Your task to perform on an android device: Go to display settings Image 0: 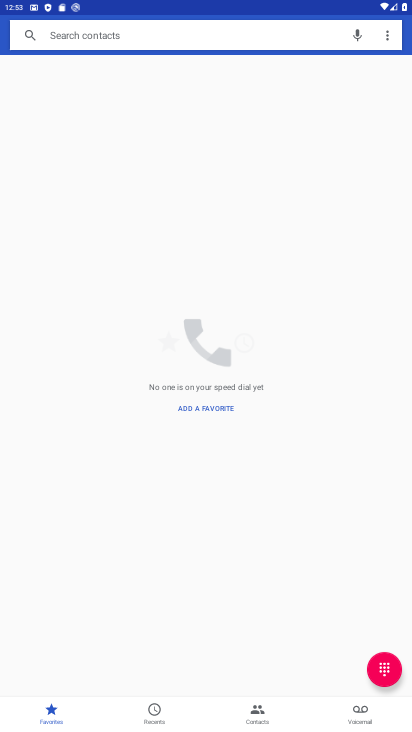
Step 0: drag from (269, 12) to (299, 548)
Your task to perform on an android device: Go to display settings Image 1: 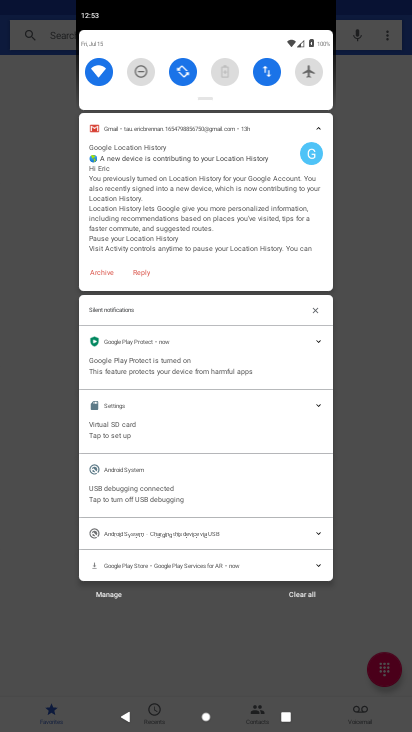
Step 1: drag from (195, 41) to (262, 610)
Your task to perform on an android device: Go to display settings Image 2: 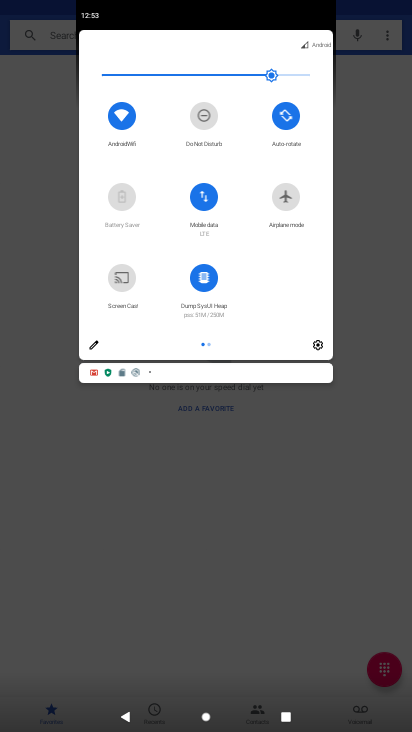
Step 2: click (318, 347)
Your task to perform on an android device: Go to display settings Image 3: 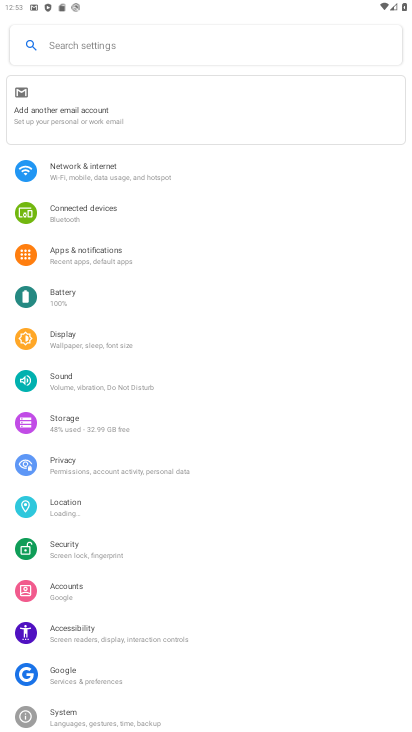
Step 3: click (95, 341)
Your task to perform on an android device: Go to display settings Image 4: 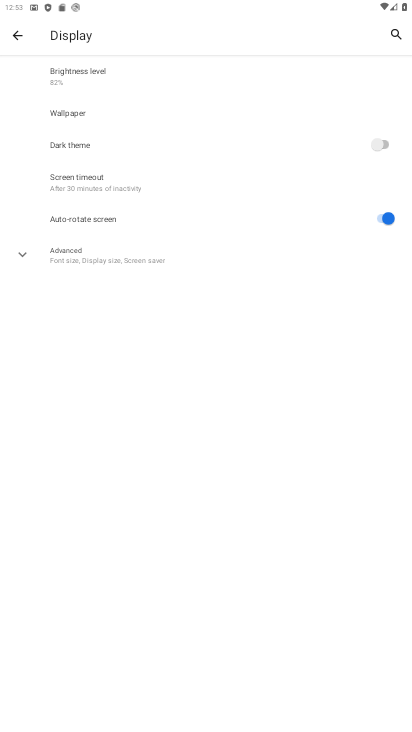
Step 4: task complete